Your task to perform on an android device: open app "Spotify: Music and Podcasts" (install if not already installed) Image 0: 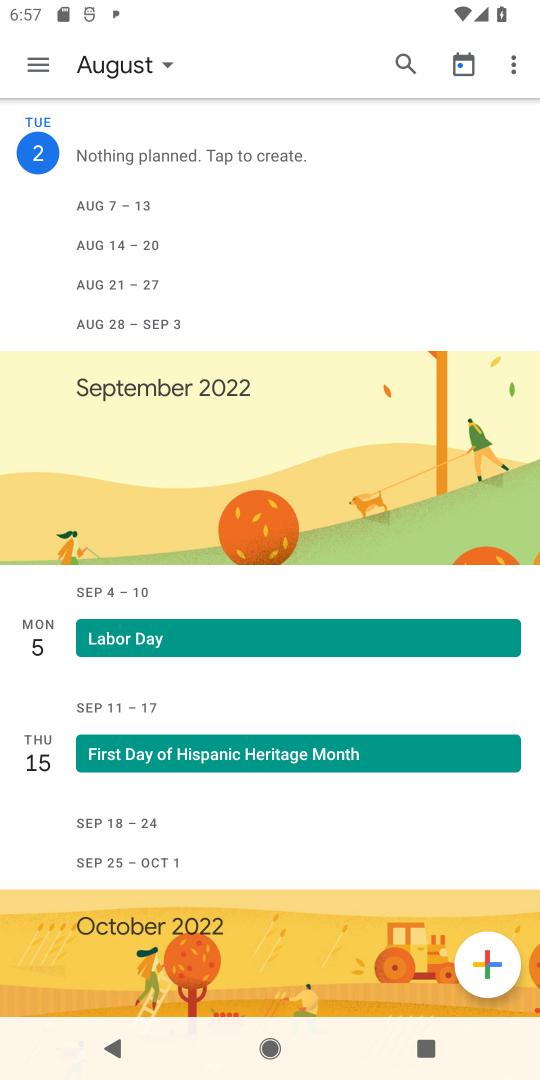
Step 0: press home button
Your task to perform on an android device: open app "Spotify: Music and Podcasts" (install if not already installed) Image 1: 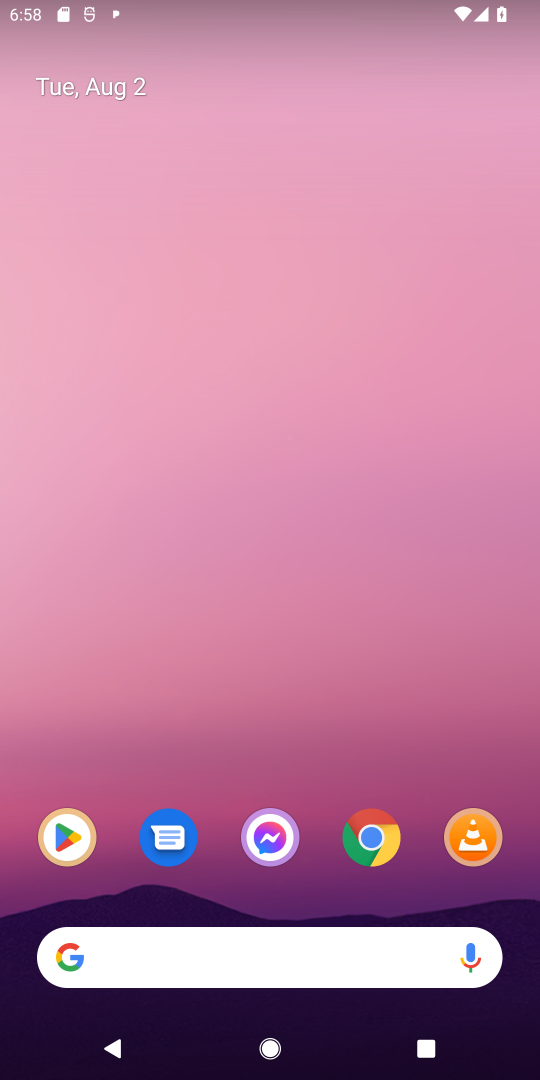
Step 1: click (62, 843)
Your task to perform on an android device: open app "Spotify: Music and Podcasts" (install if not already installed) Image 2: 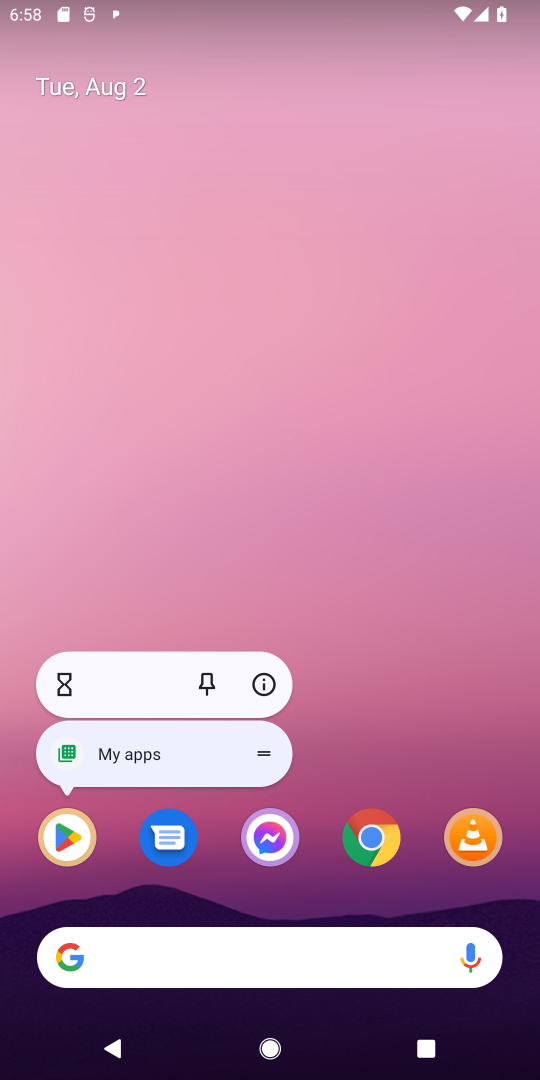
Step 2: click (62, 843)
Your task to perform on an android device: open app "Spotify: Music and Podcasts" (install if not already installed) Image 3: 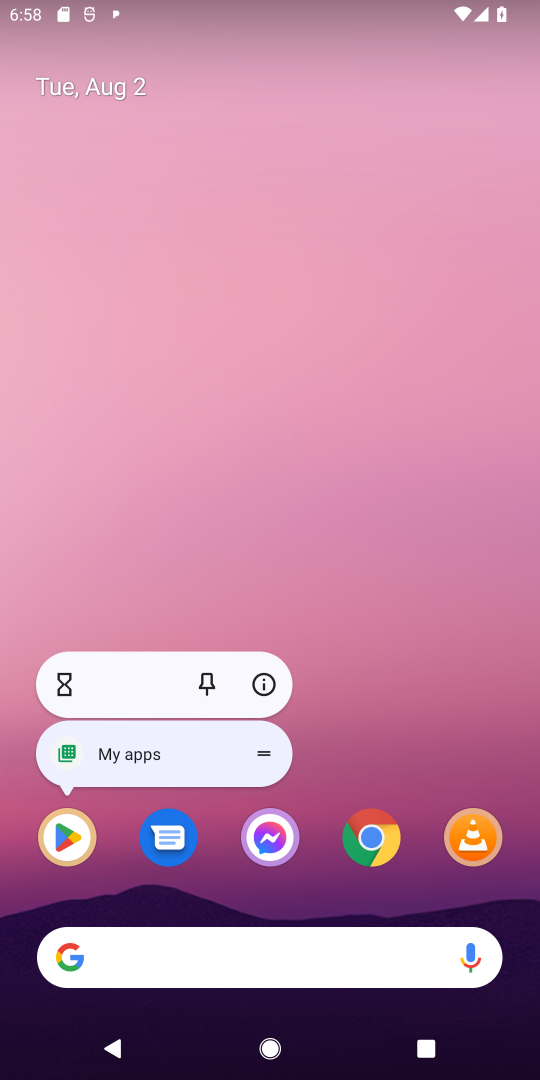
Step 3: click (62, 843)
Your task to perform on an android device: open app "Spotify: Music and Podcasts" (install if not already installed) Image 4: 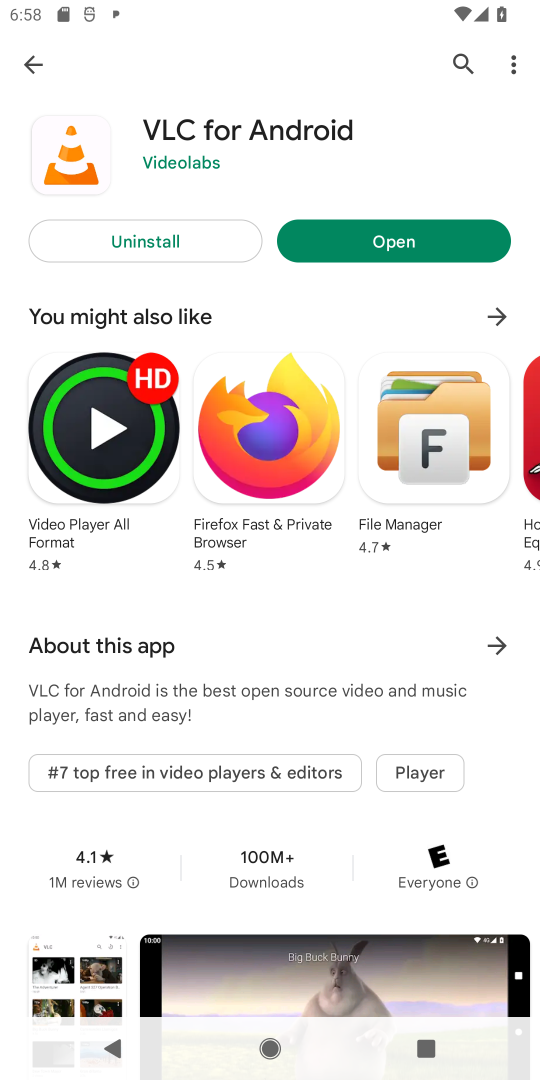
Step 4: click (460, 68)
Your task to perform on an android device: open app "Spotify: Music and Podcasts" (install if not already installed) Image 5: 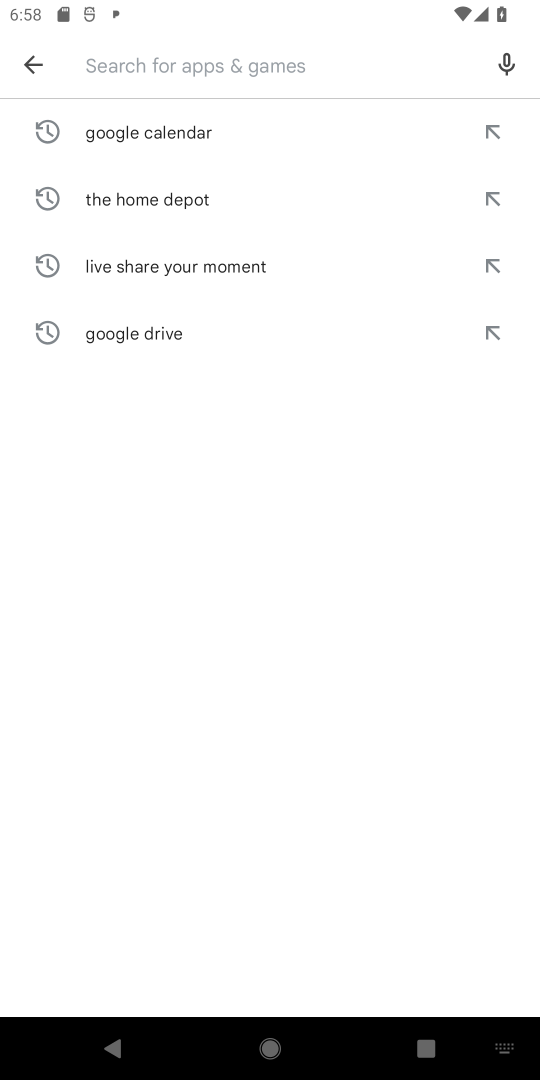
Step 5: type "Spotify: Music and Podcasts"
Your task to perform on an android device: open app "Spotify: Music and Podcasts" (install if not already installed) Image 6: 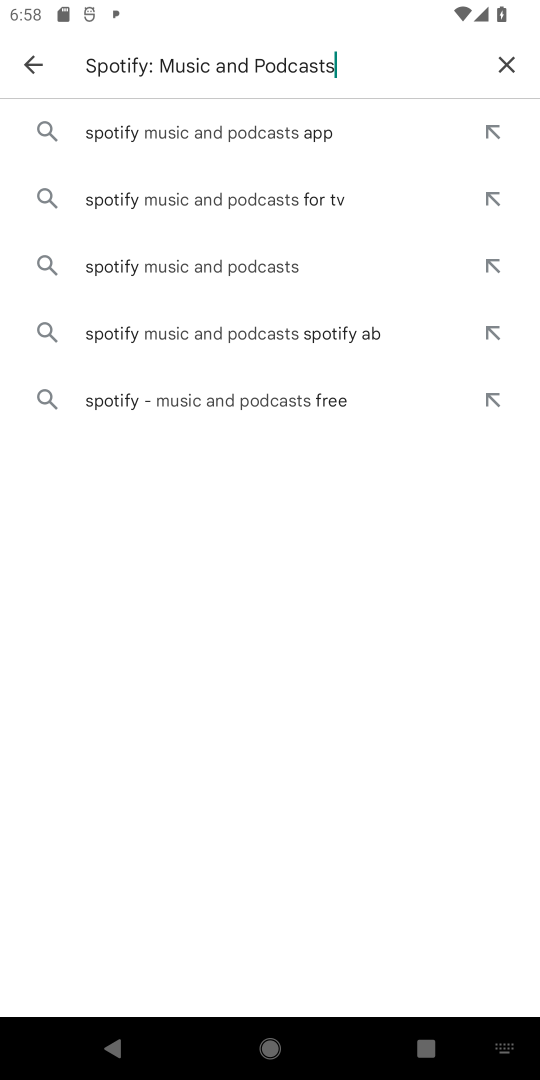
Step 6: click (165, 152)
Your task to perform on an android device: open app "Spotify: Music and Podcasts" (install if not already installed) Image 7: 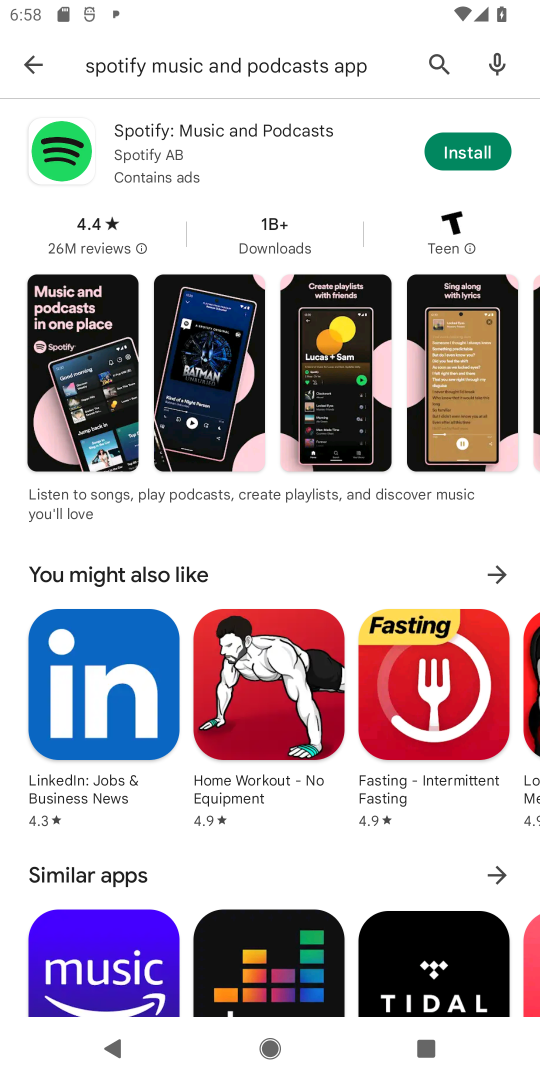
Step 7: click (486, 161)
Your task to perform on an android device: open app "Spotify: Music and Podcasts" (install if not already installed) Image 8: 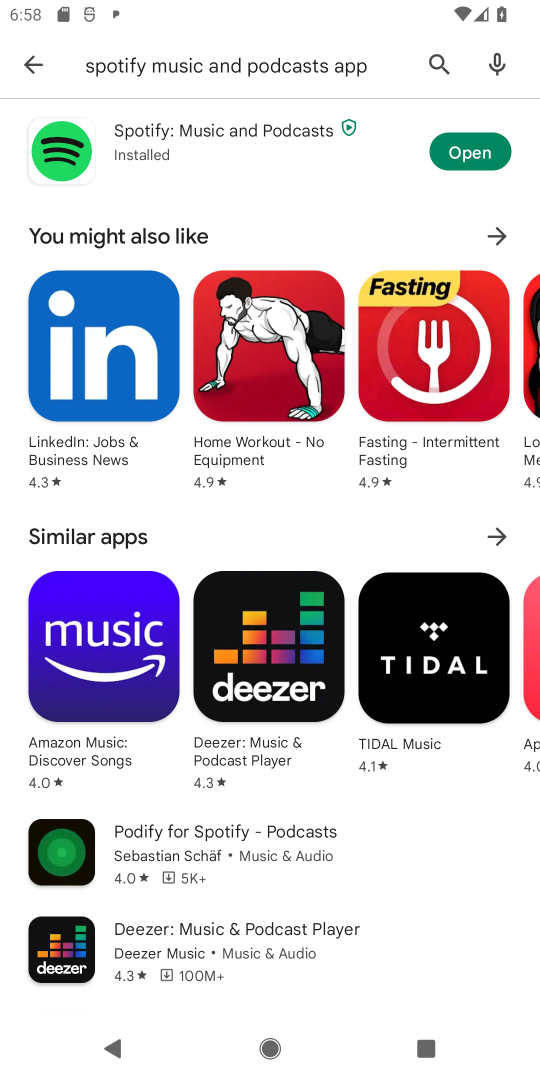
Step 8: click (482, 158)
Your task to perform on an android device: open app "Spotify: Music and Podcasts" (install if not already installed) Image 9: 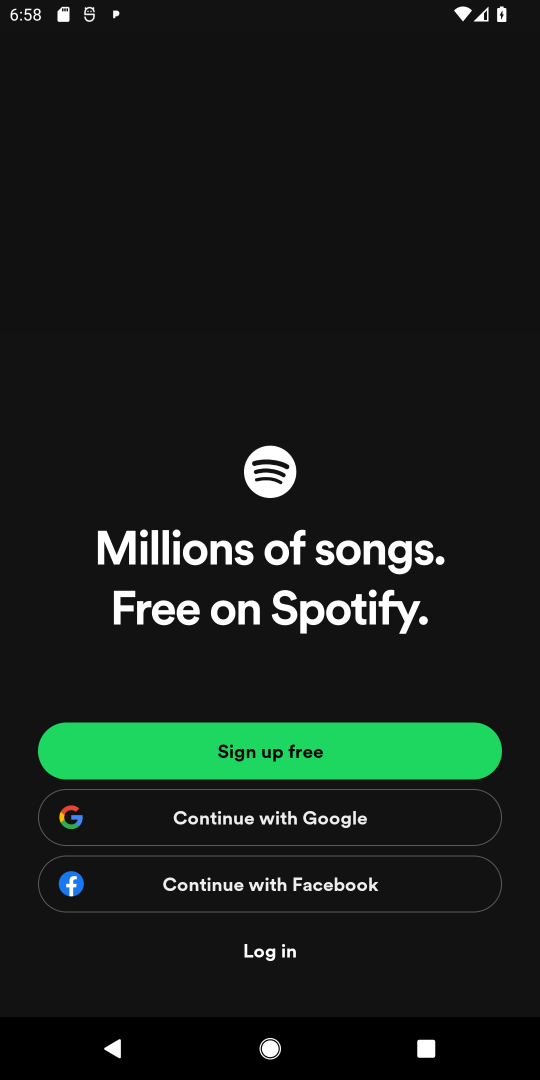
Step 9: task complete